Your task to perform on an android device: open app "McDonald's" Image 0: 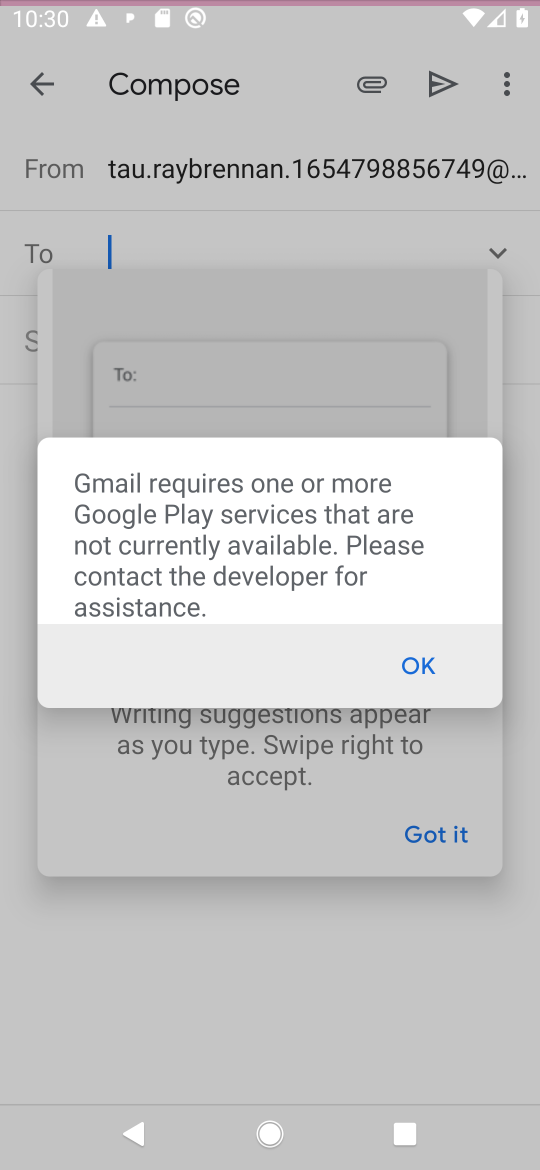
Step 0: press home button
Your task to perform on an android device: open app "McDonald's" Image 1: 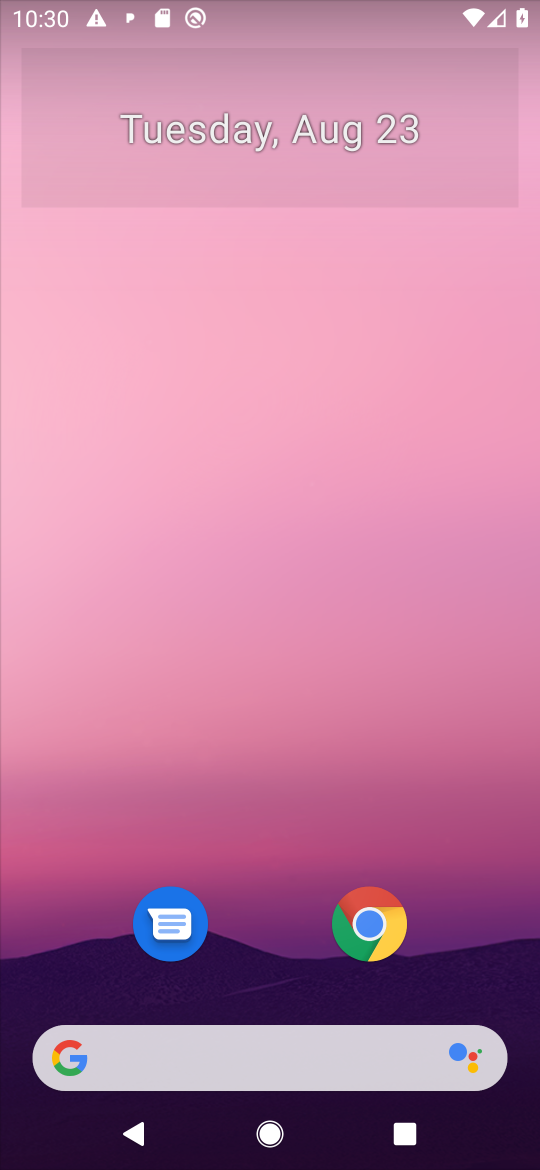
Step 1: drag from (457, 900) to (480, 147)
Your task to perform on an android device: open app "McDonald's" Image 2: 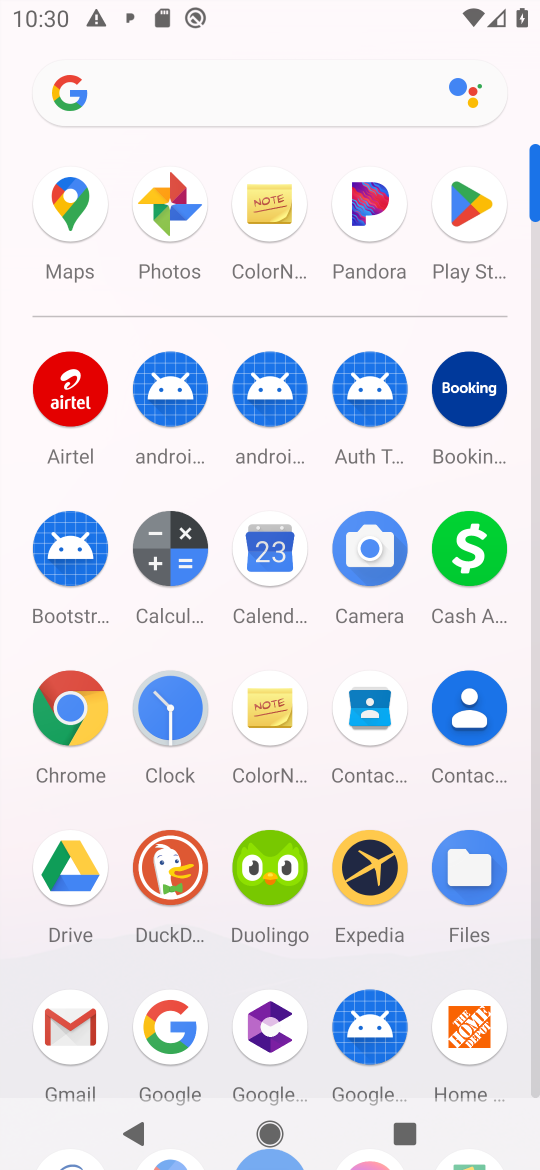
Step 2: click (470, 225)
Your task to perform on an android device: open app "McDonald's" Image 3: 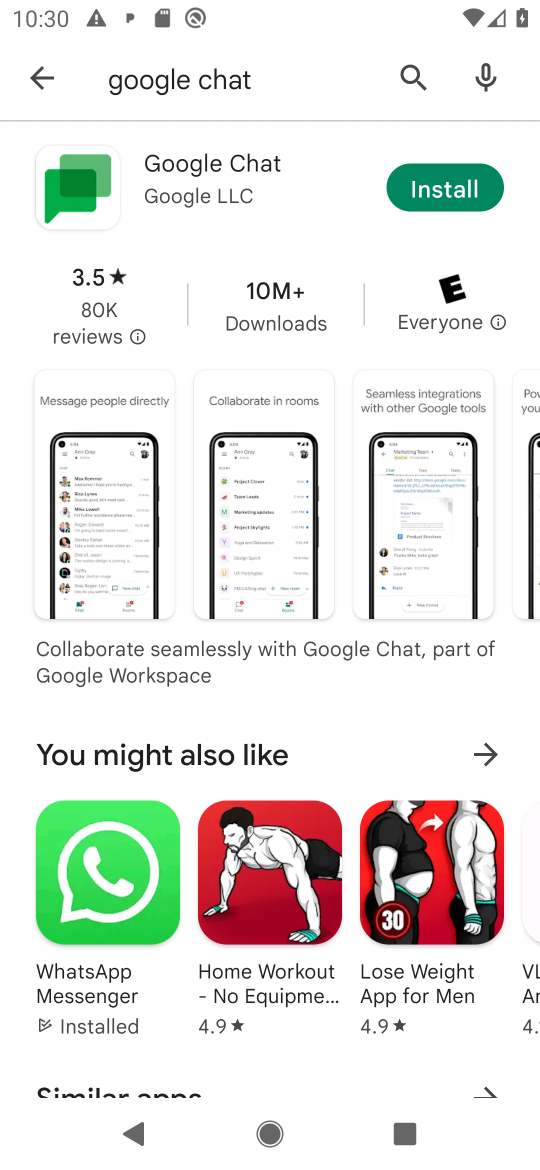
Step 3: press back button
Your task to perform on an android device: open app "McDonald's" Image 4: 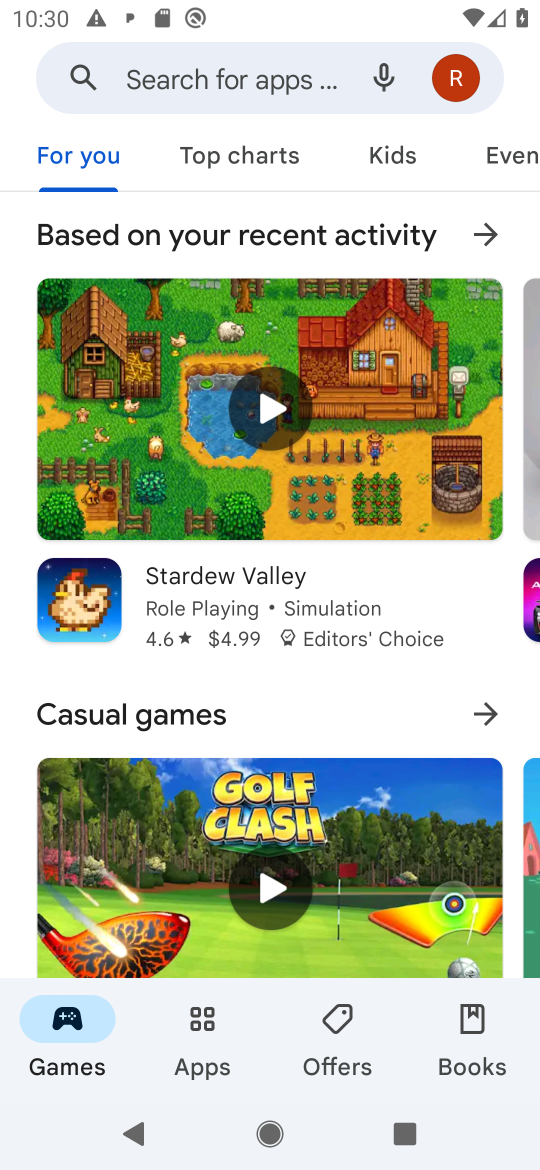
Step 4: click (252, 74)
Your task to perform on an android device: open app "McDonald's" Image 5: 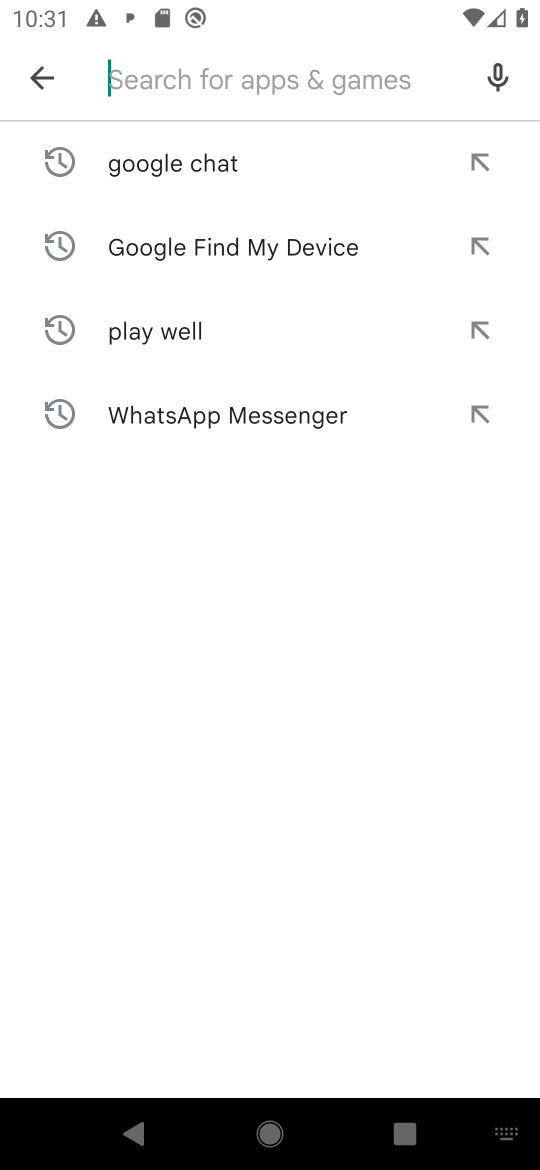
Step 5: press enter
Your task to perform on an android device: open app "McDonald's" Image 6: 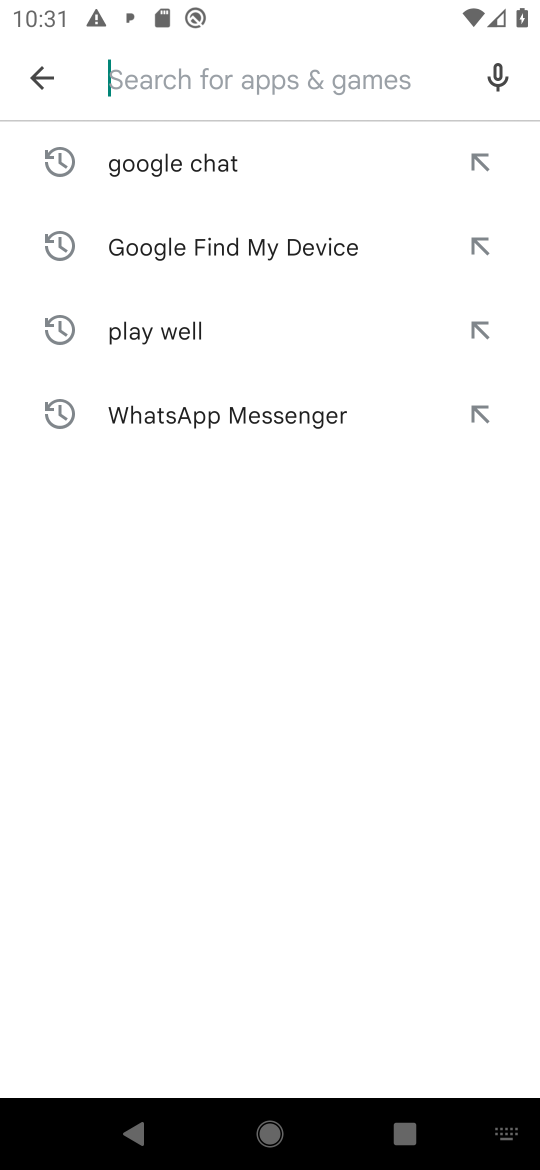
Step 6: type "mcdonalds"
Your task to perform on an android device: open app "McDonald's" Image 7: 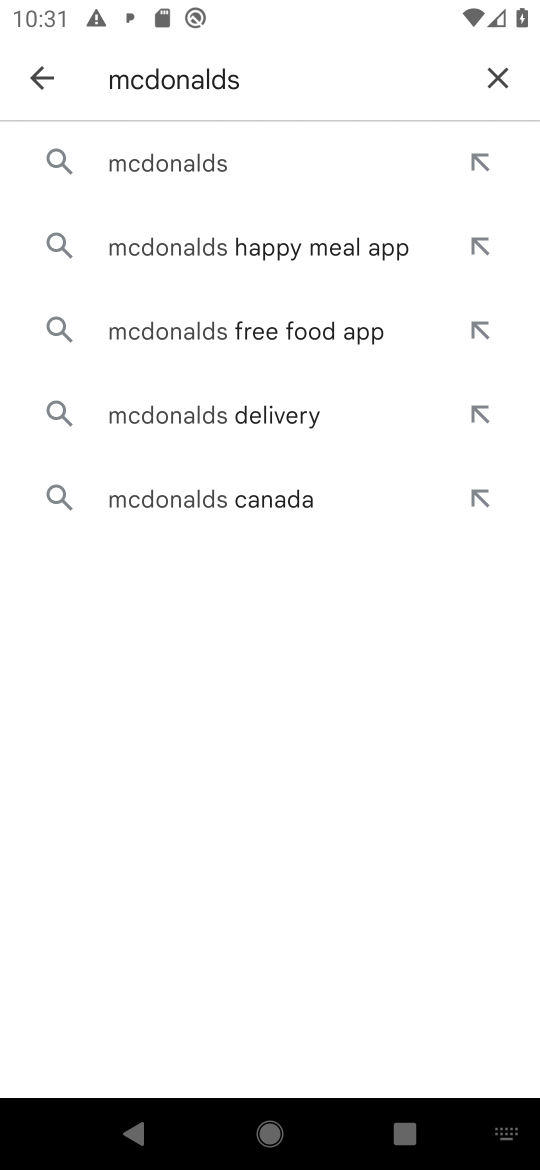
Step 7: click (216, 154)
Your task to perform on an android device: open app "McDonald's" Image 8: 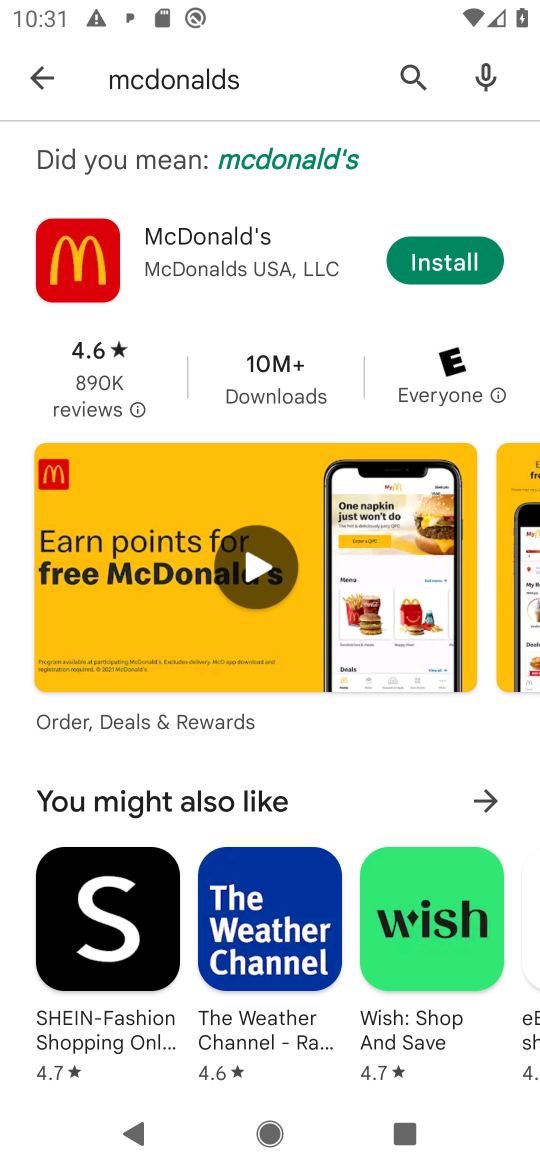
Step 8: task complete